Your task to perform on an android device: Search for flights from Barcelona to Mexico city Image 0: 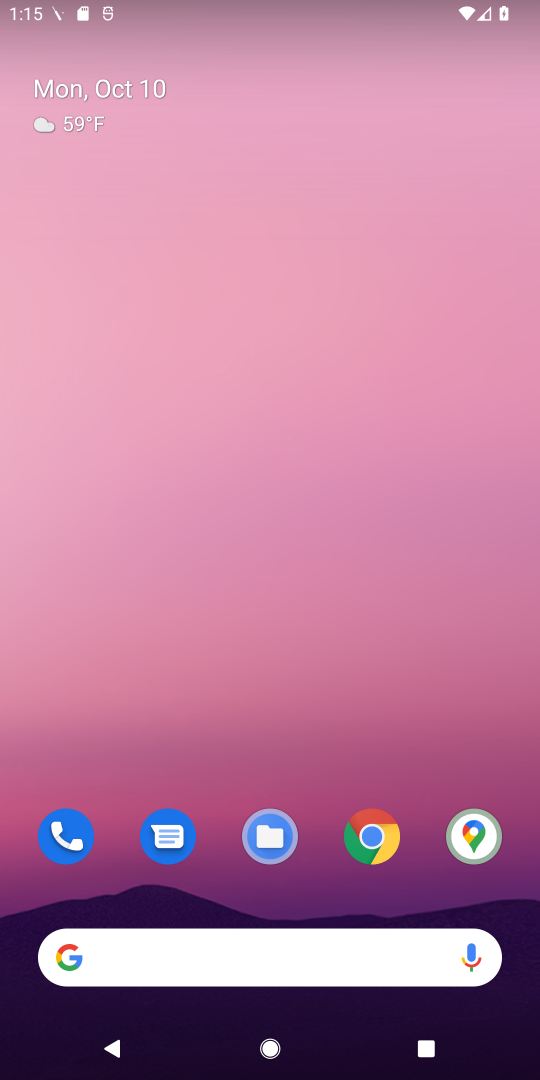
Step 0: click (369, 847)
Your task to perform on an android device: Search for flights from Barcelona to Mexico city Image 1: 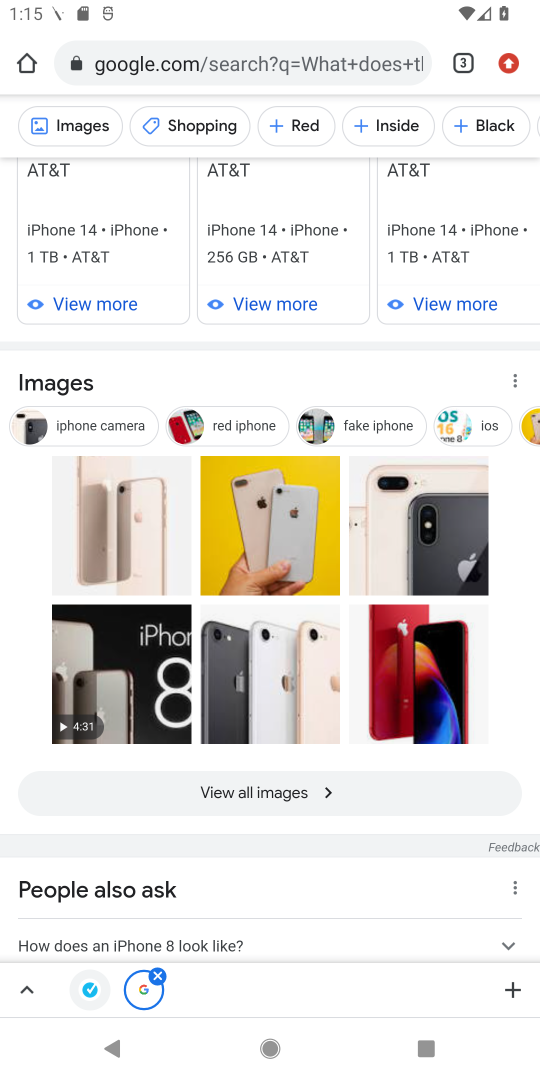
Step 1: click (322, 68)
Your task to perform on an android device: Search for flights from Barcelona to Mexico city Image 2: 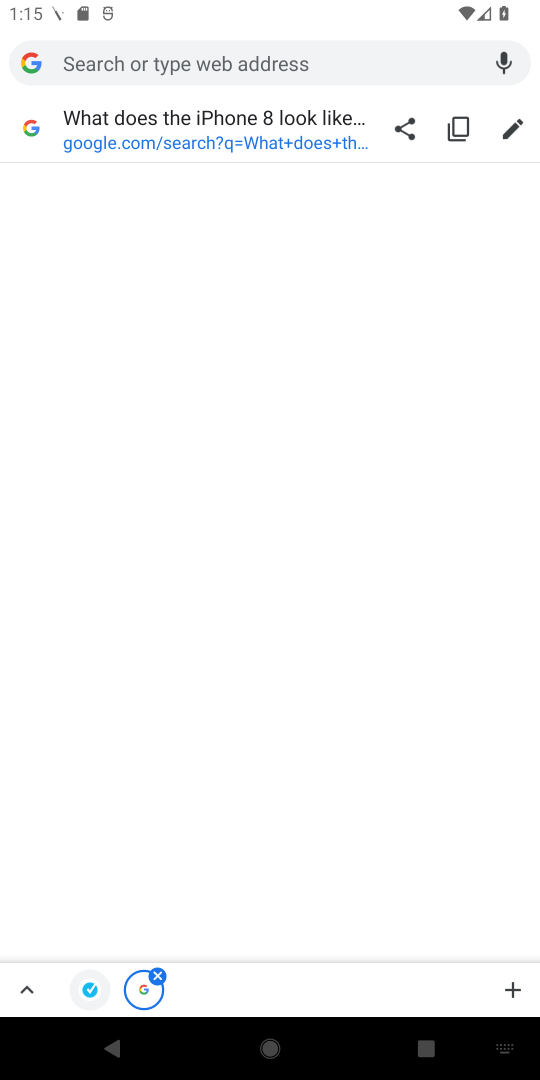
Step 2: type "Barcelona to Mexico city flights"
Your task to perform on an android device: Search for flights from Barcelona to Mexico city Image 3: 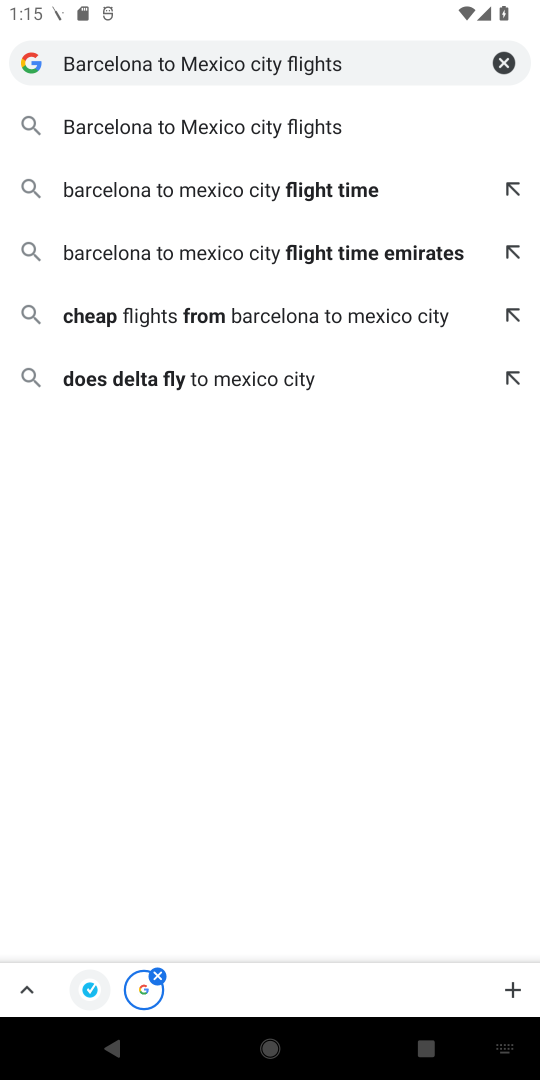
Step 3: click (303, 127)
Your task to perform on an android device: Search for flights from Barcelona to Mexico city Image 4: 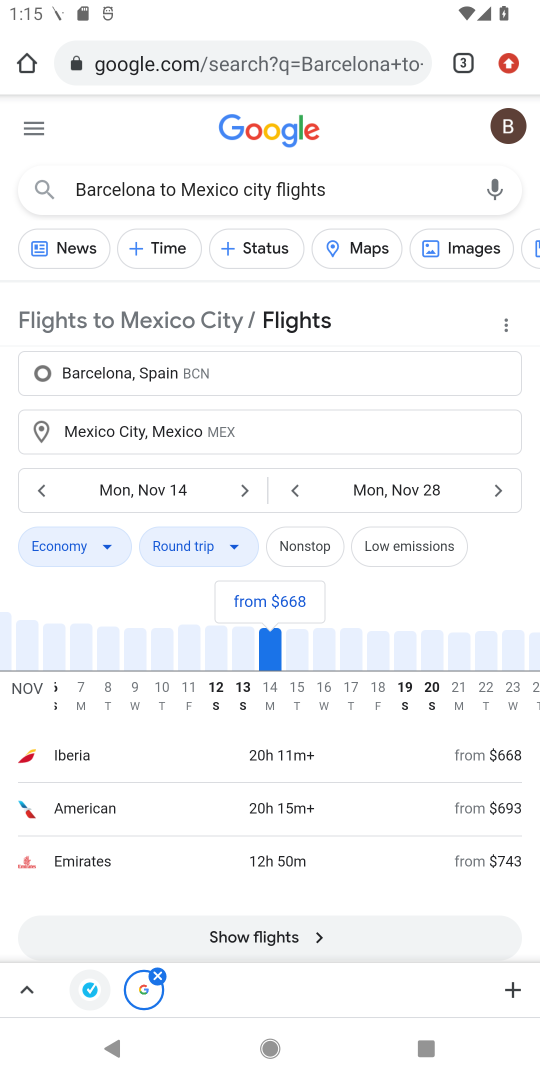
Step 4: drag from (394, 623) to (344, 286)
Your task to perform on an android device: Search for flights from Barcelona to Mexico city Image 5: 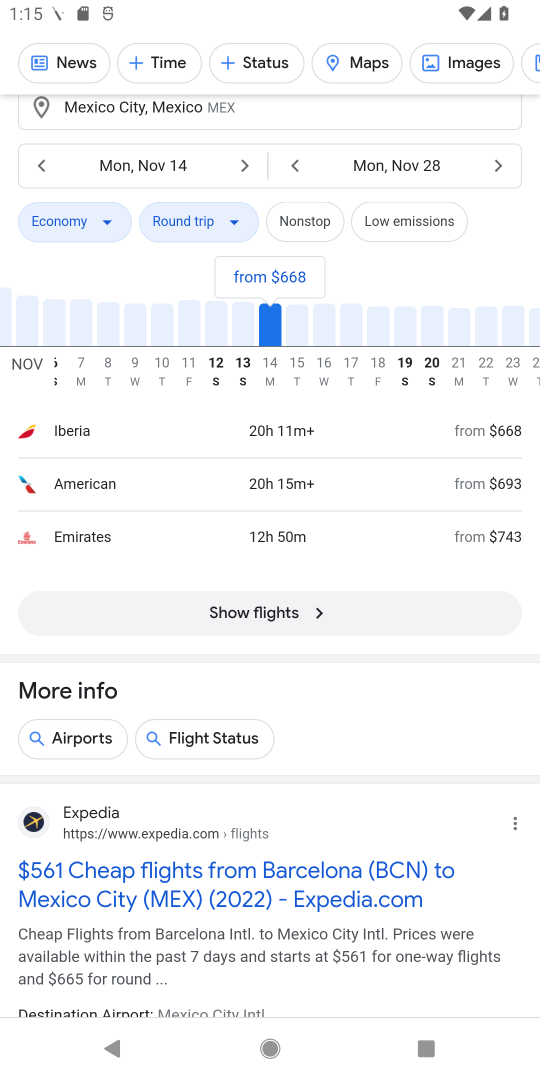
Step 5: click (300, 614)
Your task to perform on an android device: Search for flights from Barcelona to Mexico city Image 6: 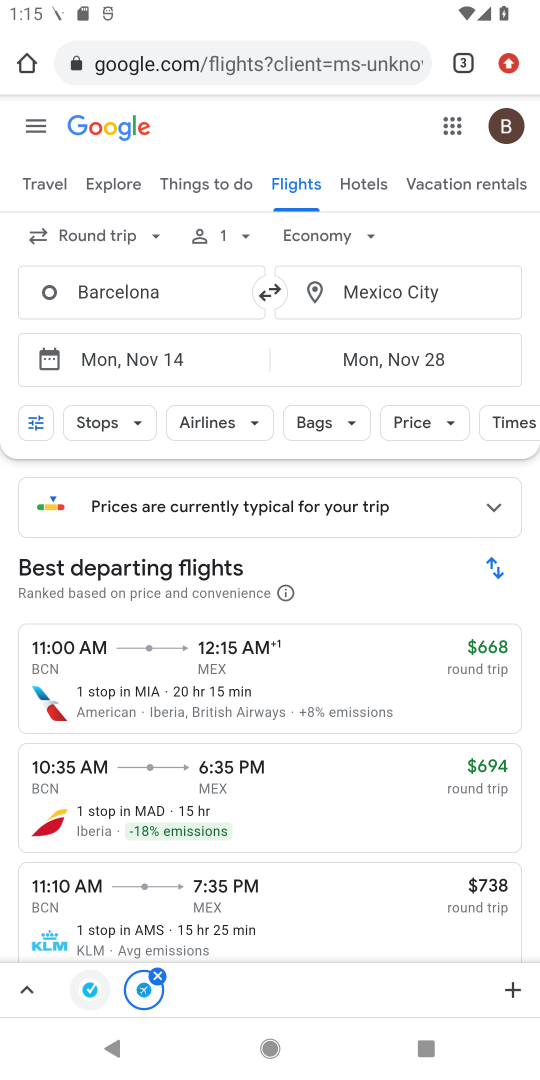
Step 6: task complete